Your task to perform on an android device: change your default location settings in chrome Image 0: 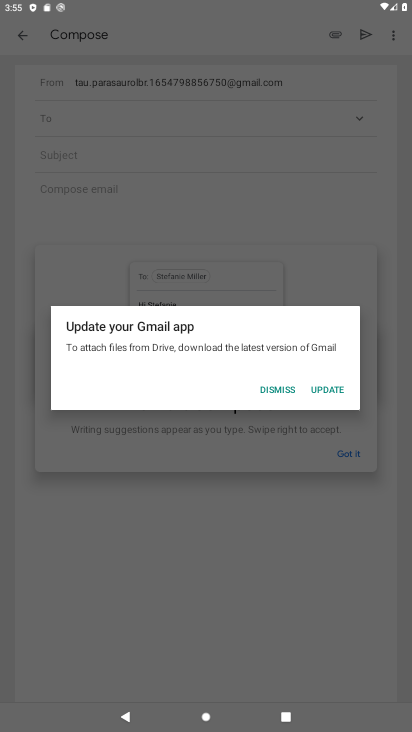
Step 0: press home button
Your task to perform on an android device: change your default location settings in chrome Image 1: 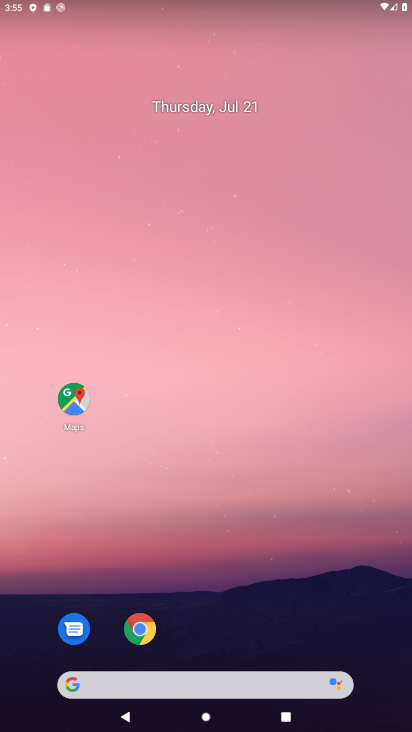
Step 1: drag from (165, 480) to (169, 149)
Your task to perform on an android device: change your default location settings in chrome Image 2: 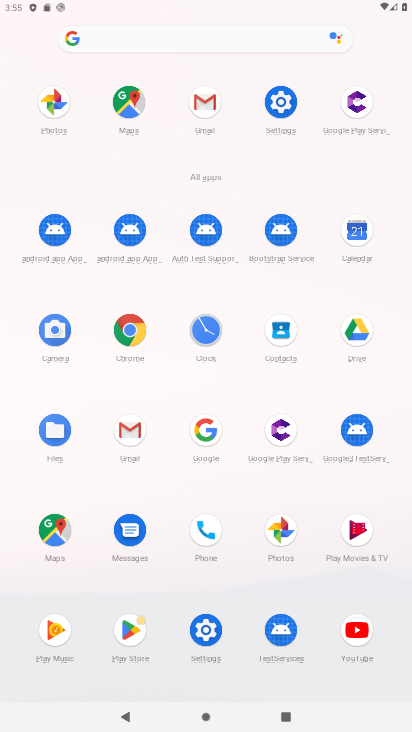
Step 2: click (117, 329)
Your task to perform on an android device: change your default location settings in chrome Image 3: 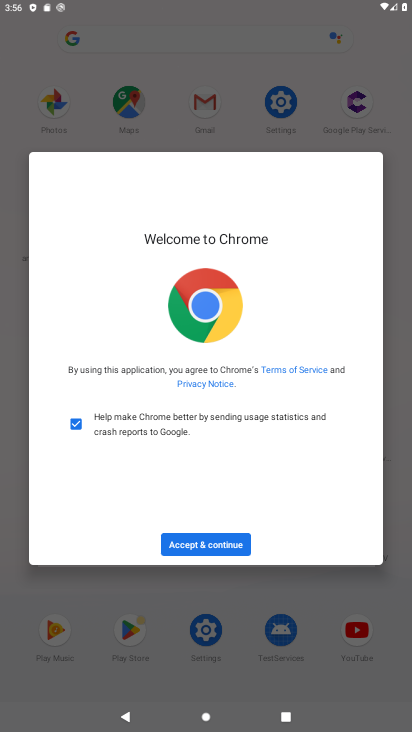
Step 3: click (234, 552)
Your task to perform on an android device: change your default location settings in chrome Image 4: 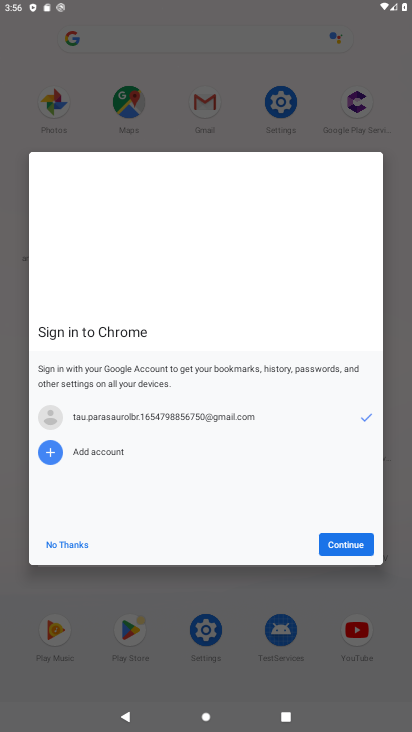
Step 4: click (349, 551)
Your task to perform on an android device: change your default location settings in chrome Image 5: 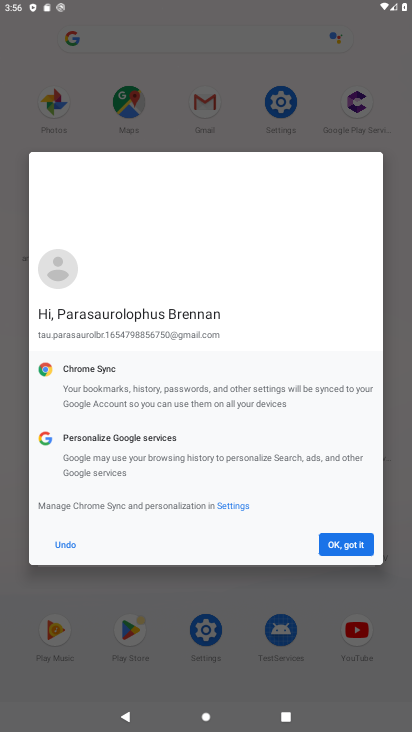
Step 5: click (328, 549)
Your task to perform on an android device: change your default location settings in chrome Image 6: 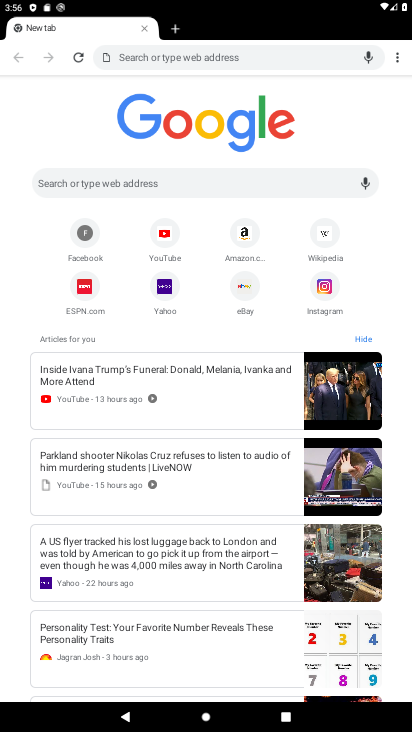
Step 6: click (399, 60)
Your task to perform on an android device: change your default location settings in chrome Image 7: 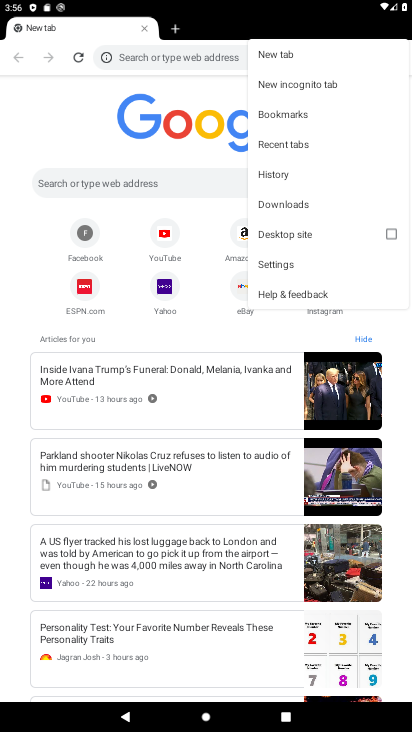
Step 7: click (302, 260)
Your task to perform on an android device: change your default location settings in chrome Image 8: 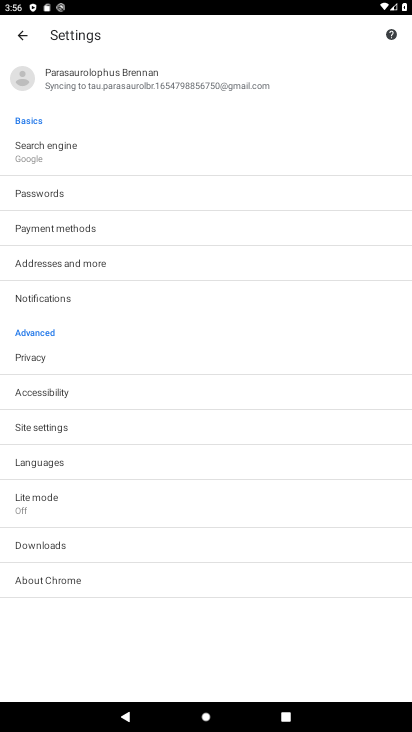
Step 8: click (74, 426)
Your task to perform on an android device: change your default location settings in chrome Image 9: 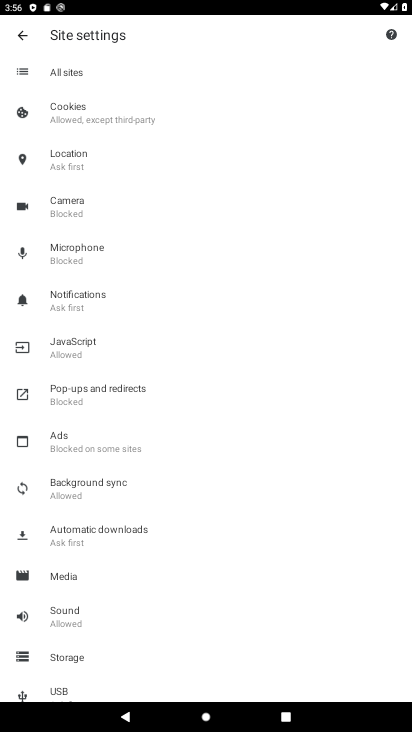
Step 9: click (111, 165)
Your task to perform on an android device: change your default location settings in chrome Image 10: 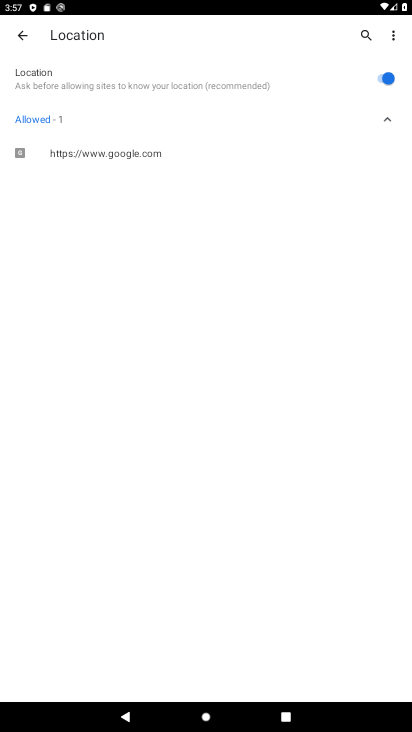
Step 10: click (370, 89)
Your task to perform on an android device: change your default location settings in chrome Image 11: 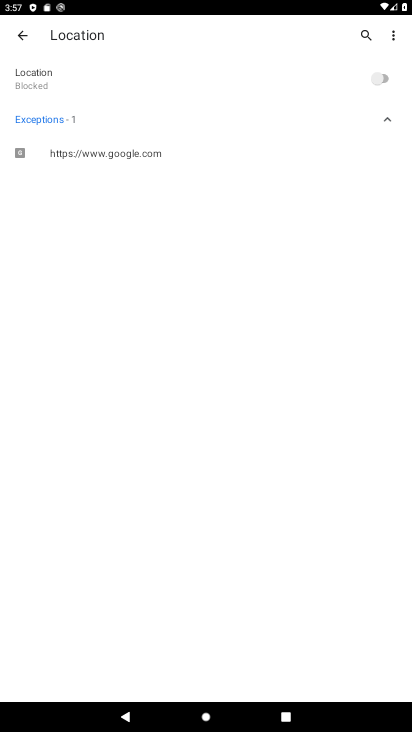
Step 11: task complete